Your task to perform on an android device: Go to ESPN.com Image 0: 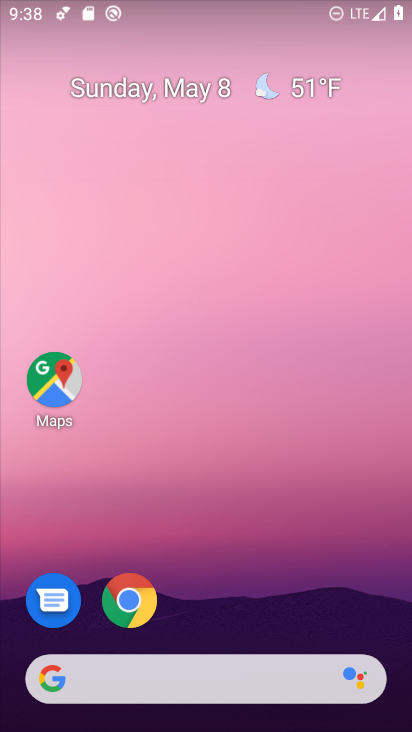
Step 0: click (140, 599)
Your task to perform on an android device: Go to ESPN.com Image 1: 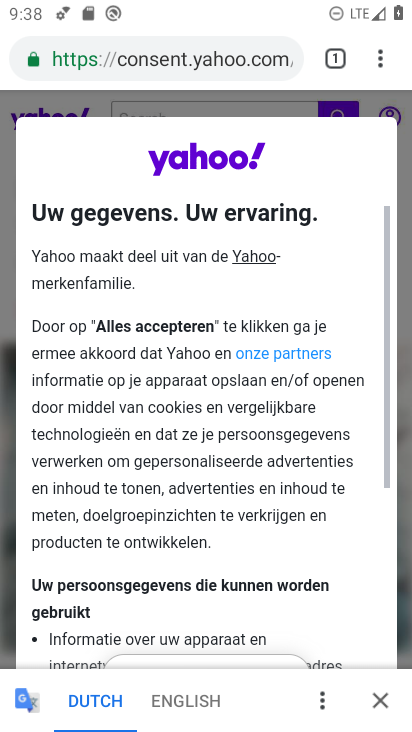
Step 1: click (117, 66)
Your task to perform on an android device: Go to ESPN.com Image 2: 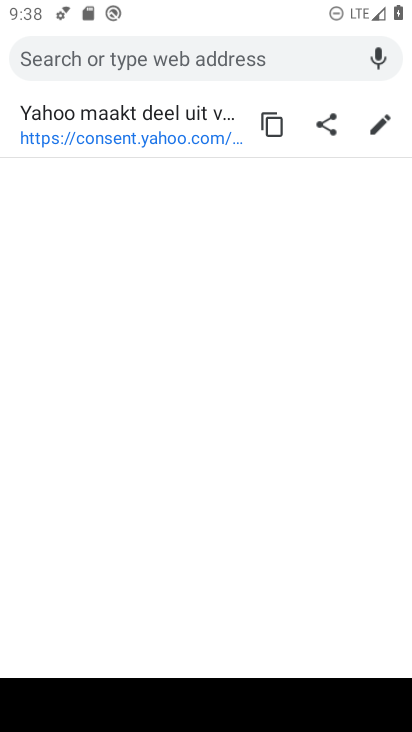
Step 2: type "espn.com"
Your task to perform on an android device: Go to ESPN.com Image 3: 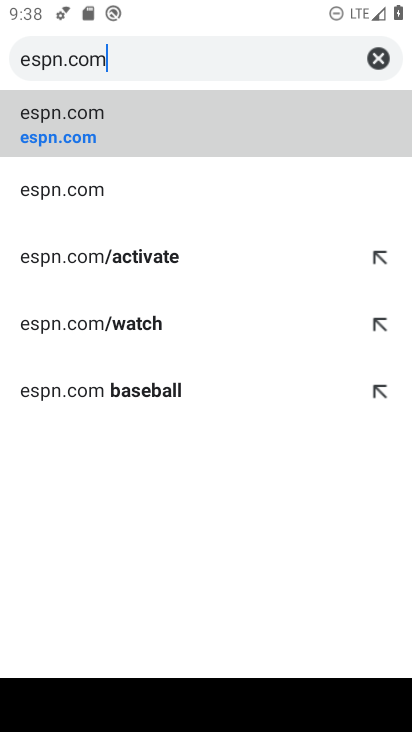
Step 3: click (69, 135)
Your task to perform on an android device: Go to ESPN.com Image 4: 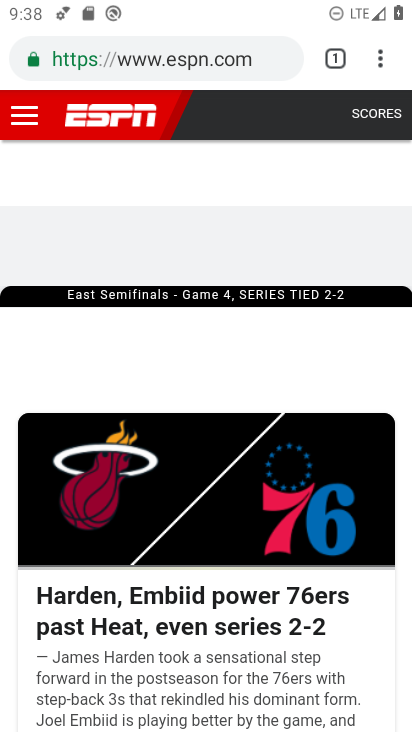
Step 4: task complete